Your task to perform on an android device: Do I have any events today? Image 0: 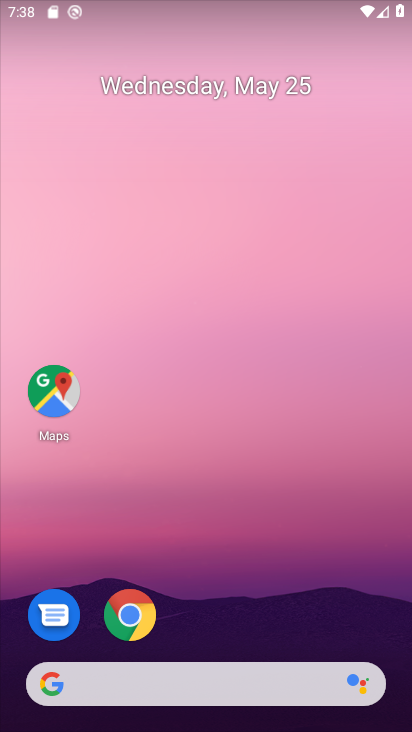
Step 0: drag from (183, 191) to (173, 17)
Your task to perform on an android device: Do I have any events today? Image 1: 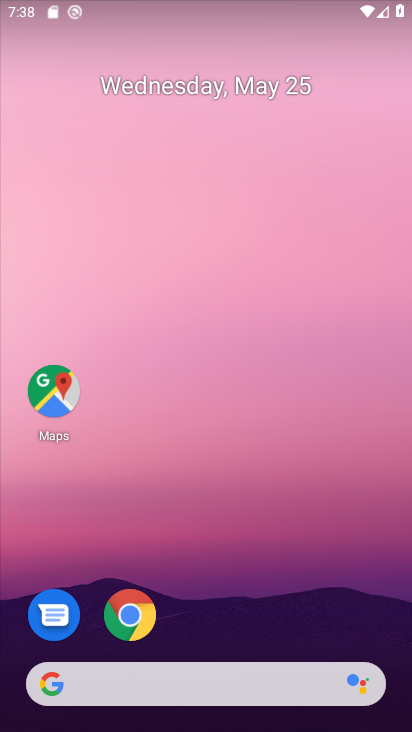
Step 1: drag from (298, 616) to (195, 0)
Your task to perform on an android device: Do I have any events today? Image 2: 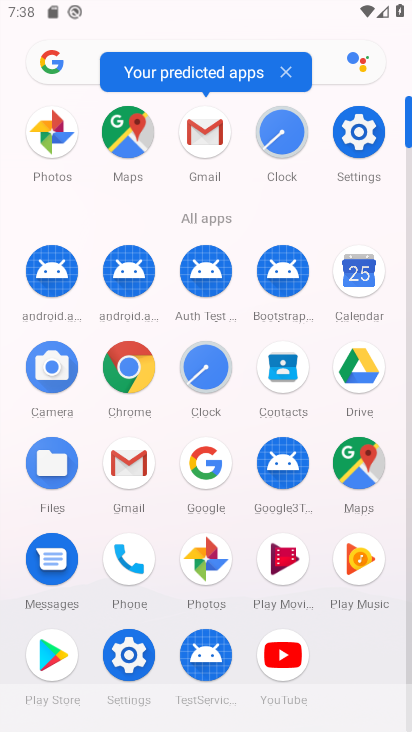
Step 2: click (359, 262)
Your task to perform on an android device: Do I have any events today? Image 3: 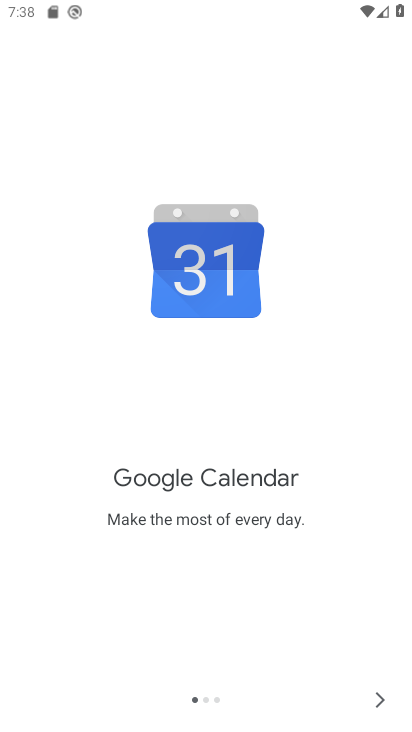
Step 3: click (381, 693)
Your task to perform on an android device: Do I have any events today? Image 4: 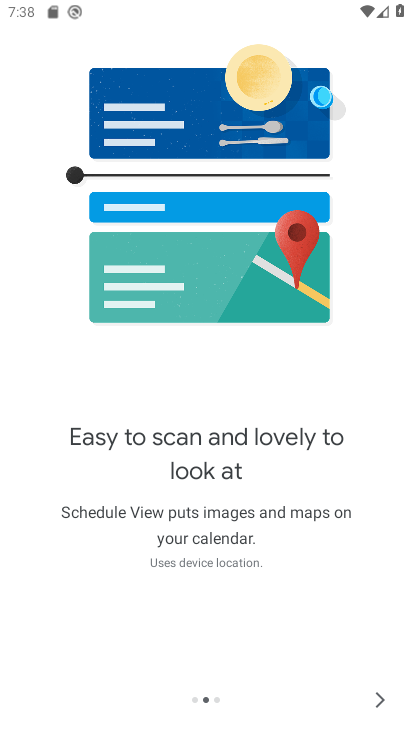
Step 4: click (381, 693)
Your task to perform on an android device: Do I have any events today? Image 5: 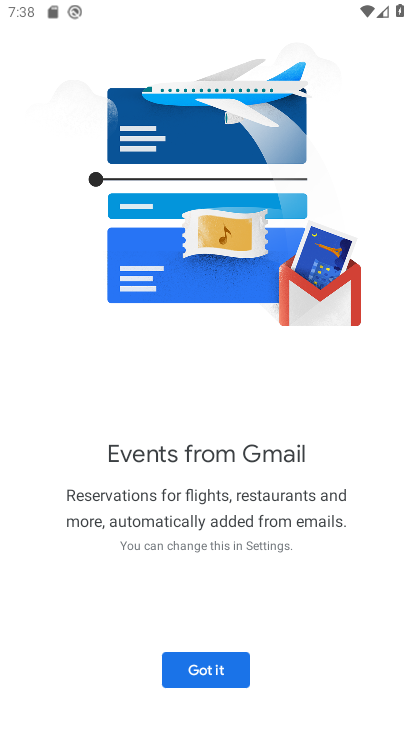
Step 5: click (221, 666)
Your task to perform on an android device: Do I have any events today? Image 6: 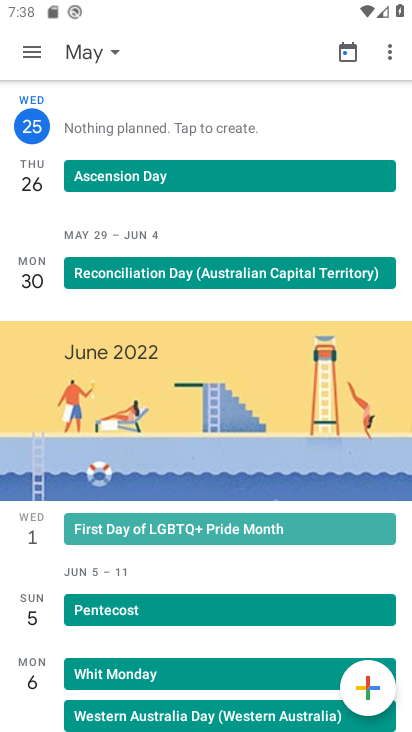
Step 6: click (97, 57)
Your task to perform on an android device: Do I have any events today? Image 7: 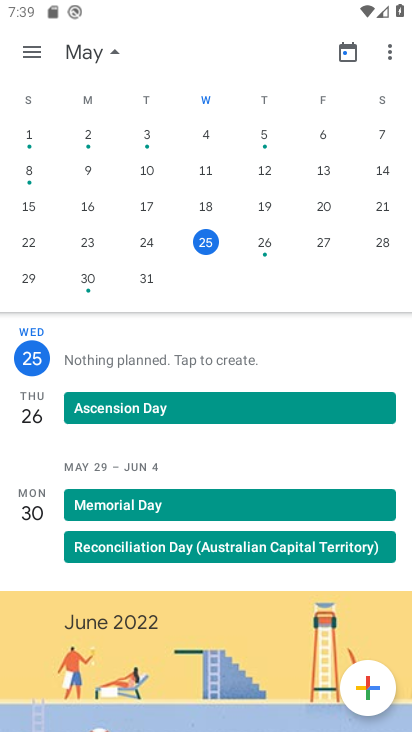
Step 7: click (209, 238)
Your task to perform on an android device: Do I have any events today? Image 8: 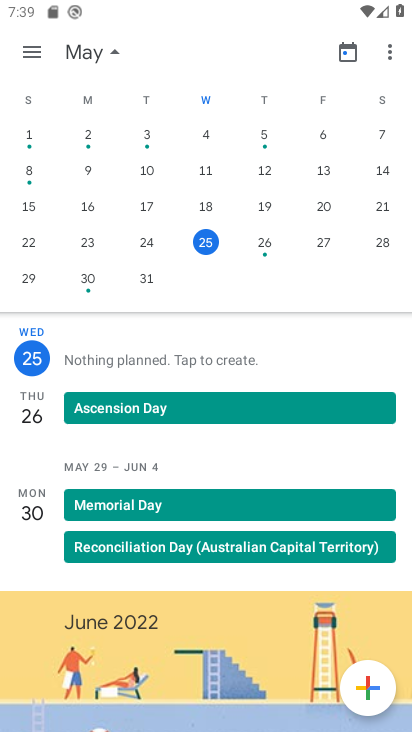
Step 8: task complete